Your task to perform on an android device: open wifi settings Image 0: 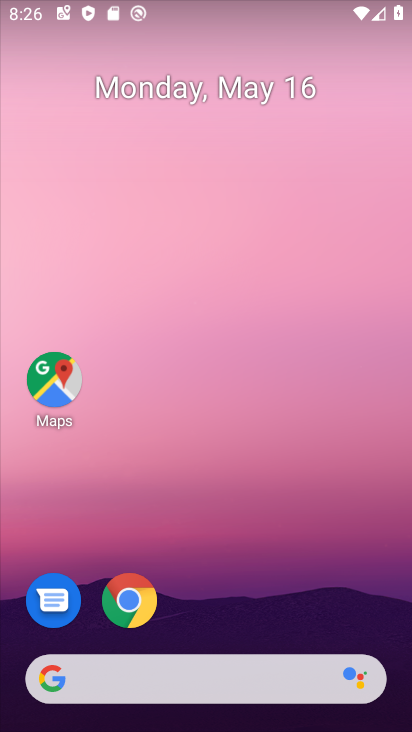
Step 0: drag from (357, 494) to (410, 212)
Your task to perform on an android device: open wifi settings Image 1: 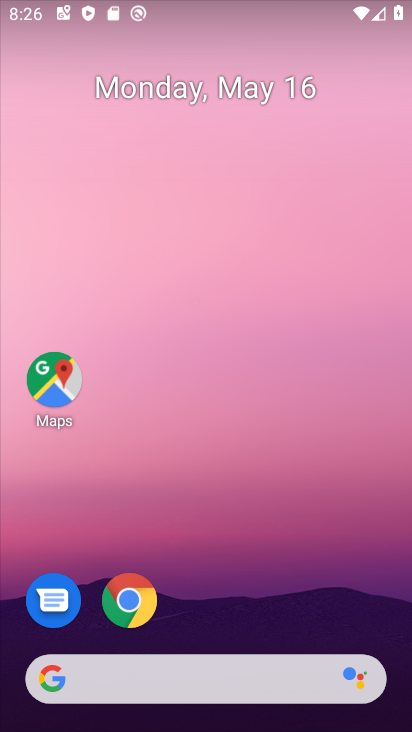
Step 1: drag from (221, 613) to (267, 237)
Your task to perform on an android device: open wifi settings Image 2: 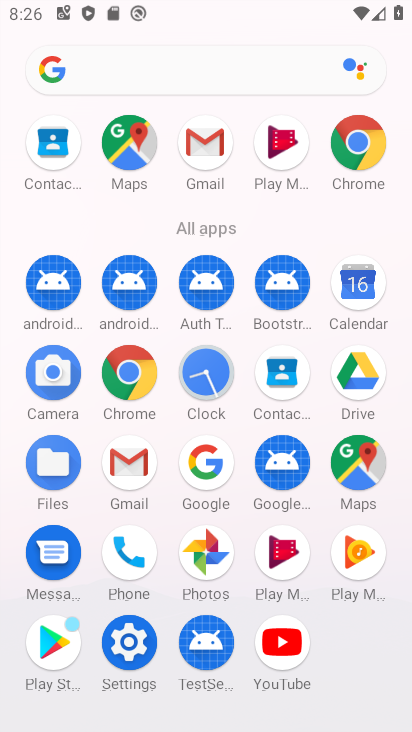
Step 2: click (130, 657)
Your task to perform on an android device: open wifi settings Image 3: 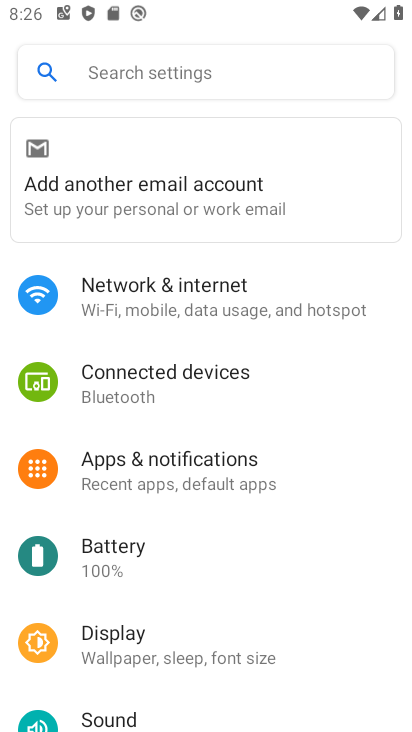
Step 3: click (143, 296)
Your task to perform on an android device: open wifi settings Image 4: 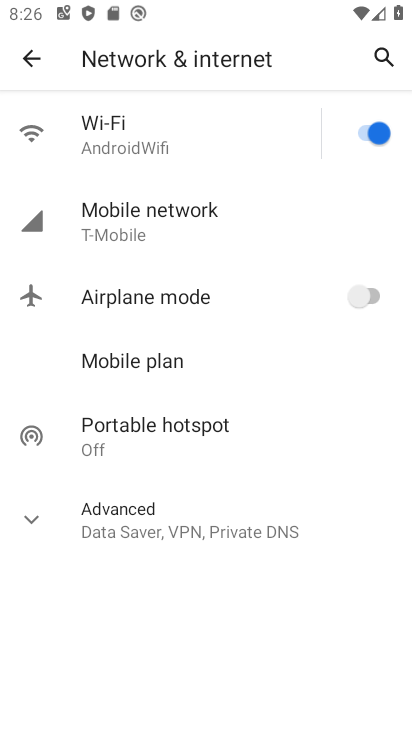
Step 4: click (193, 146)
Your task to perform on an android device: open wifi settings Image 5: 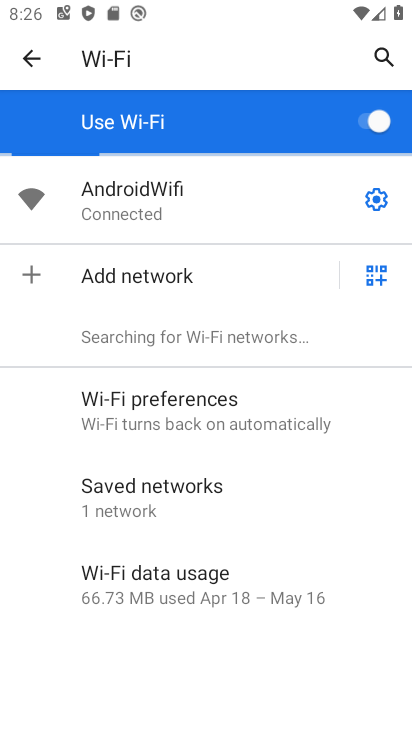
Step 5: task complete